Your task to perform on an android device: turn off picture-in-picture Image 0: 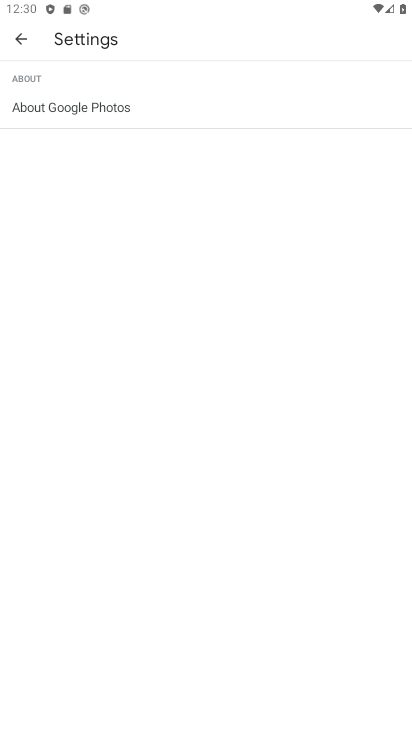
Step 0: press home button
Your task to perform on an android device: turn off picture-in-picture Image 1: 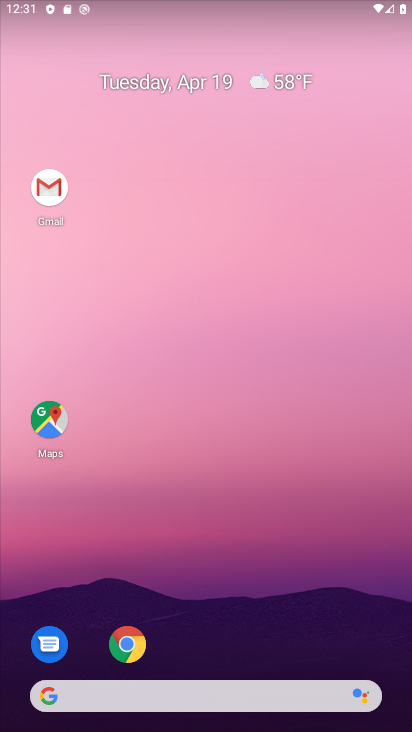
Step 1: click (126, 650)
Your task to perform on an android device: turn off picture-in-picture Image 2: 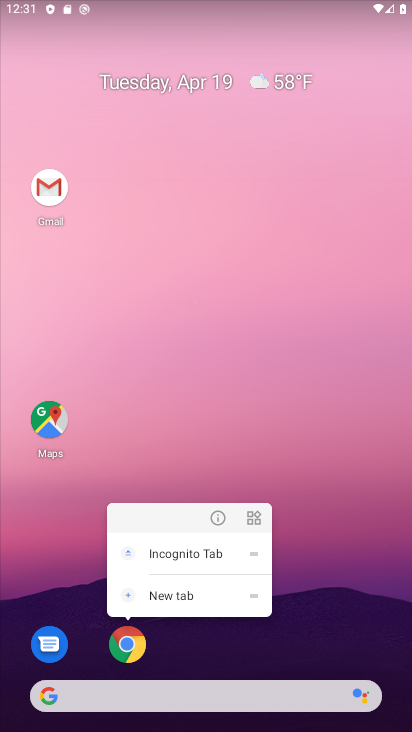
Step 2: click (216, 508)
Your task to perform on an android device: turn off picture-in-picture Image 3: 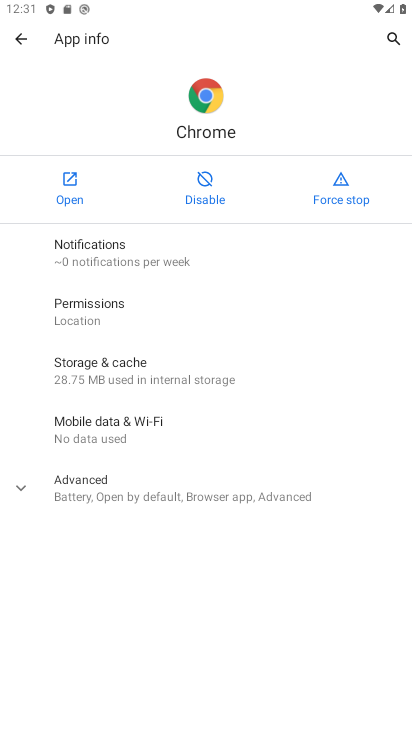
Step 3: click (174, 485)
Your task to perform on an android device: turn off picture-in-picture Image 4: 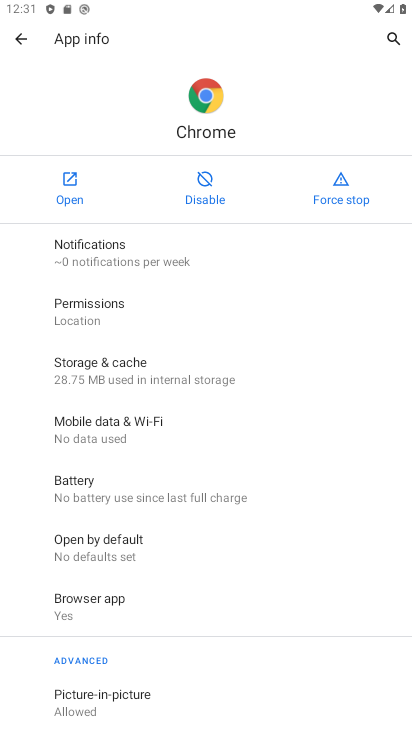
Step 4: click (147, 696)
Your task to perform on an android device: turn off picture-in-picture Image 5: 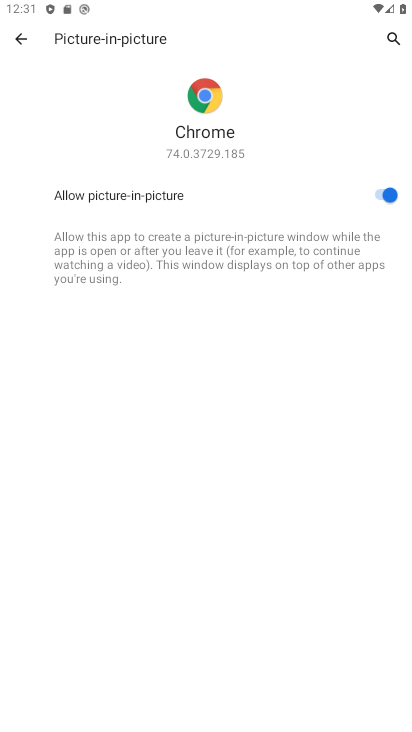
Step 5: click (383, 189)
Your task to perform on an android device: turn off picture-in-picture Image 6: 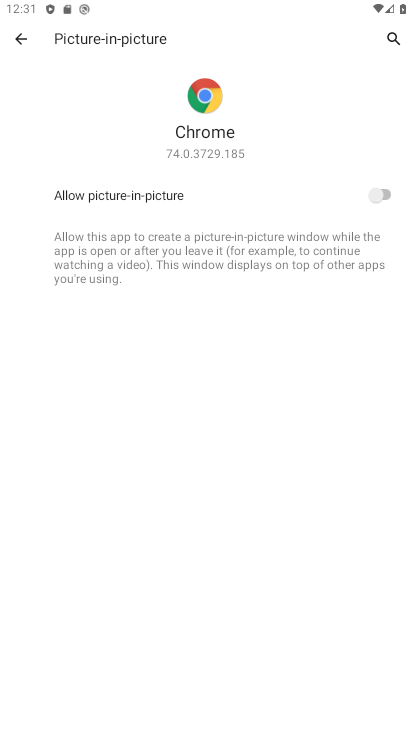
Step 6: task complete